Your task to perform on an android device: Go to ESPN.com Image 0: 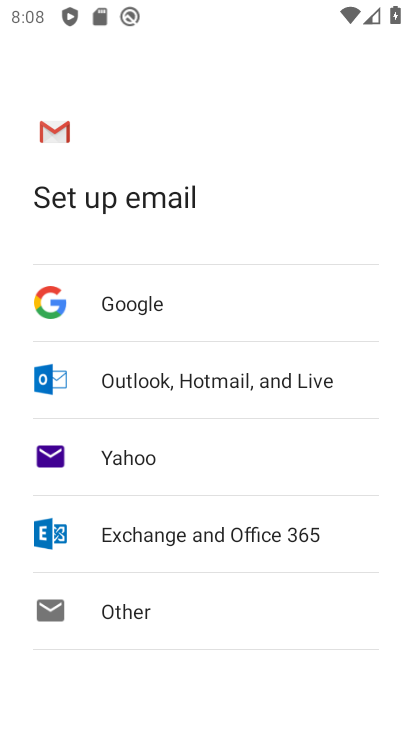
Step 0: press home button
Your task to perform on an android device: Go to ESPN.com Image 1: 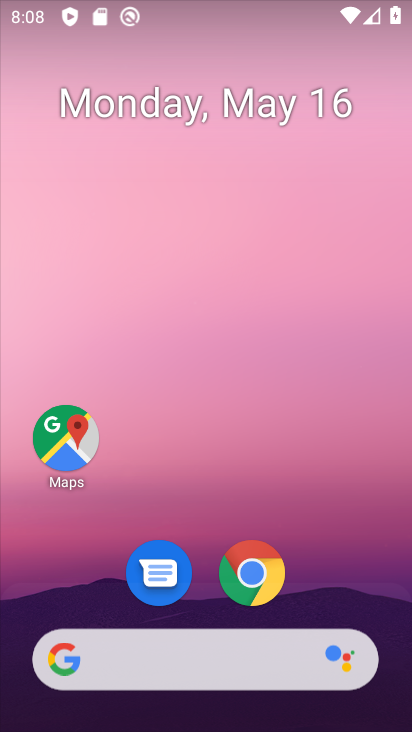
Step 1: drag from (193, 655) to (162, 138)
Your task to perform on an android device: Go to ESPN.com Image 2: 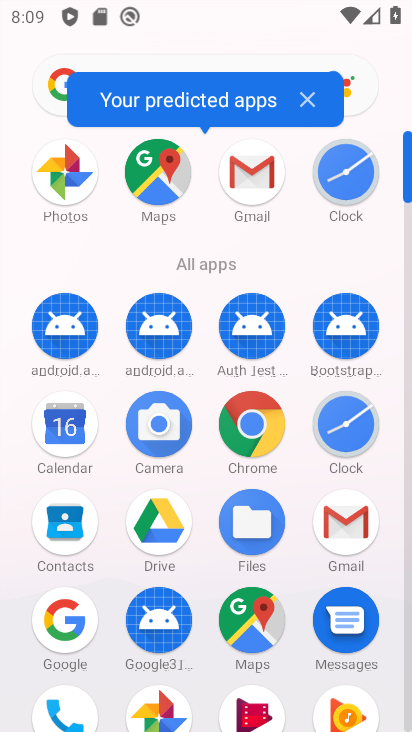
Step 2: drag from (210, 643) to (210, 267)
Your task to perform on an android device: Go to ESPN.com Image 3: 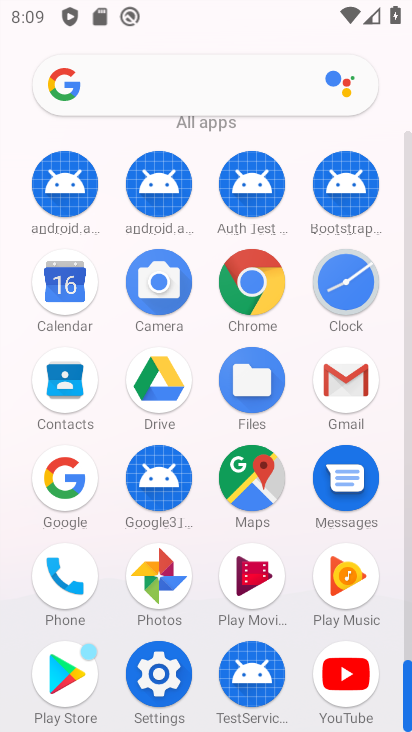
Step 3: click (243, 278)
Your task to perform on an android device: Go to ESPN.com Image 4: 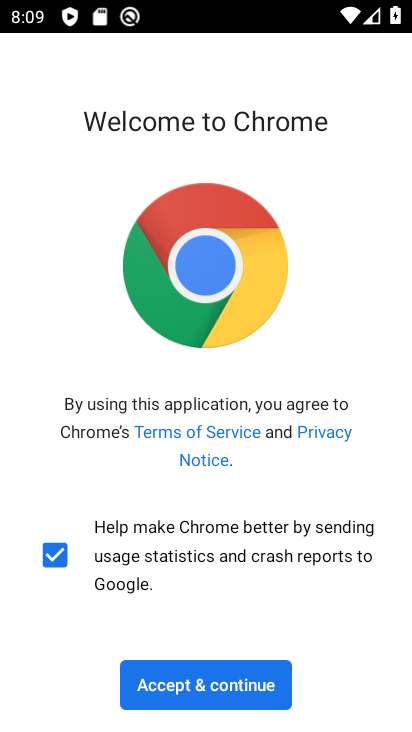
Step 4: click (189, 670)
Your task to perform on an android device: Go to ESPN.com Image 5: 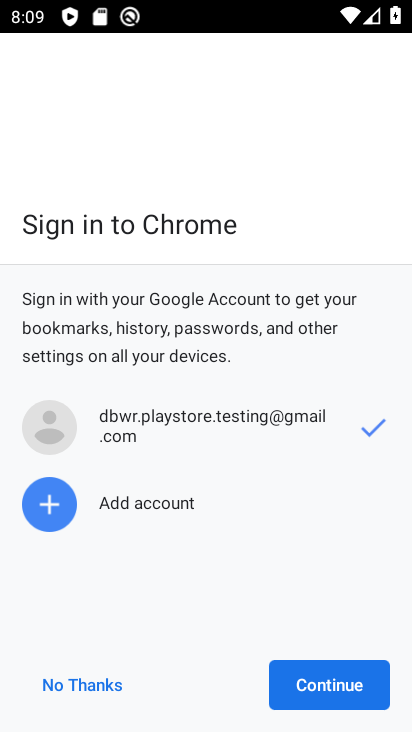
Step 5: click (344, 684)
Your task to perform on an android device: Go to ESPN.com Image 6: 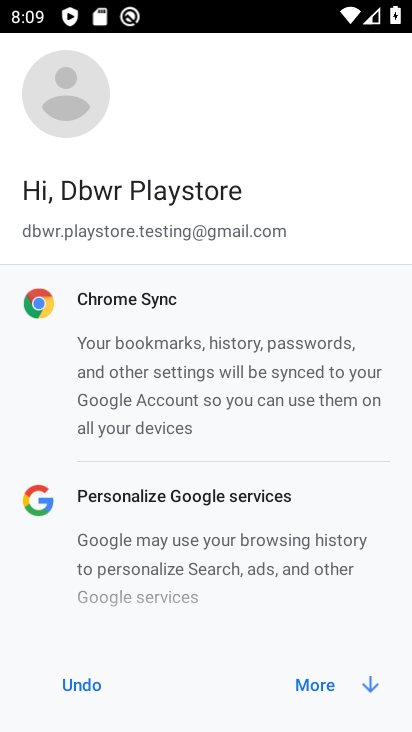
Step 6: click (305, 677)
Your task to perform on an android device: Go to ESPN.com Image 7: 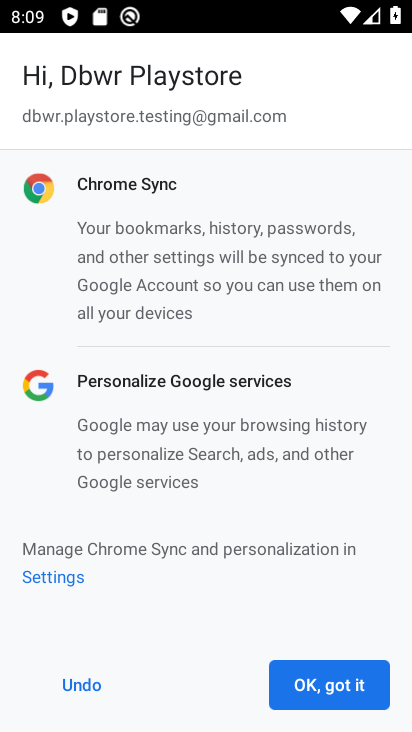
Step 7: click (305, 677)
Your task to perform on an android device: Go to ESPN.com Image 8: 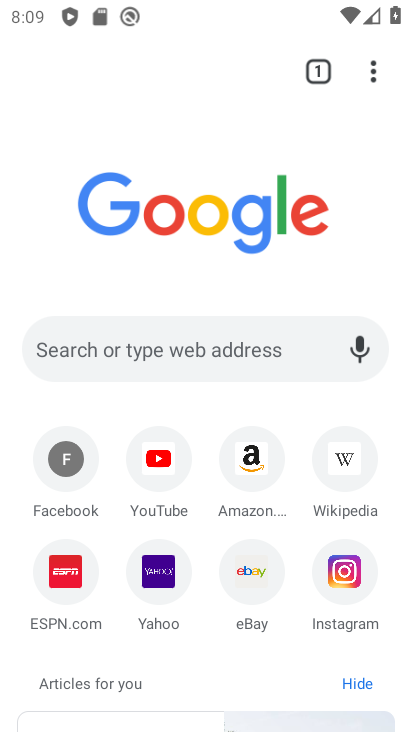
Step 8: click (202, 342)
Your task to perform on an android device: Go to ESPN.com Image 9: 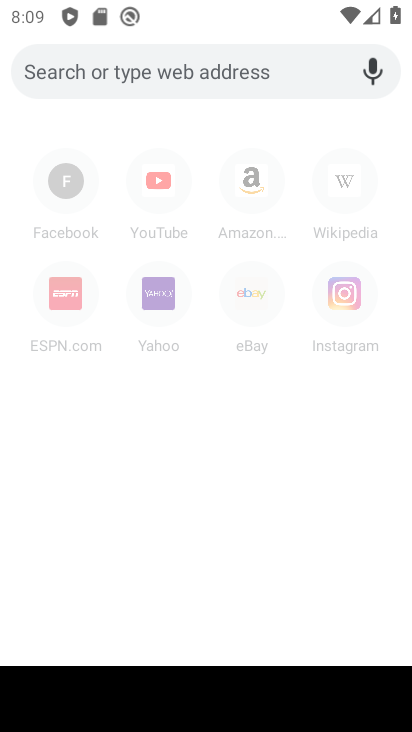
Step 9: type "ESPN.com"
Your task to perform on an android device: Go to ESPN.com Image 10: 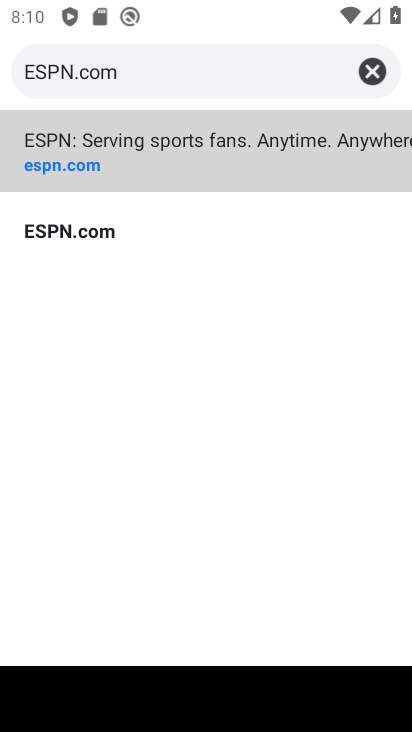
Step 10: click (97, 154)
Your task to perform on an android device: Go to ESPN.com Image 11: 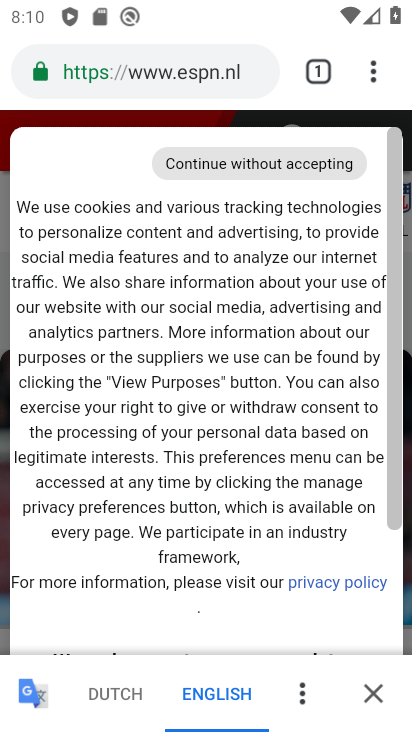
Step 11: click (294, 167)
Your task to perform on an android device: Go to ESPN.com Image 12: 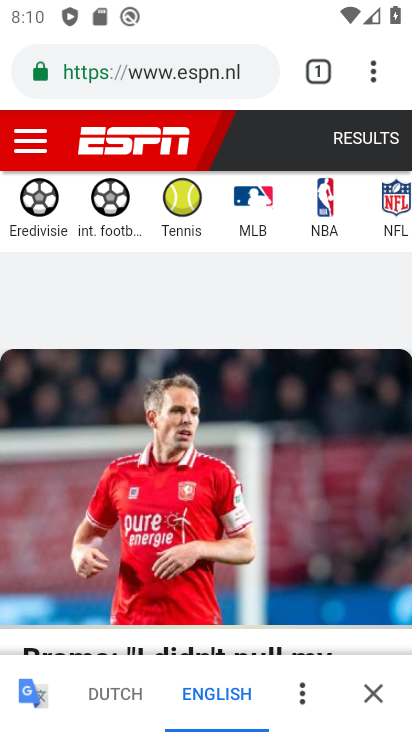
Step 12: task complete